Your task to perform on an android device: change notifications settings Image 0: 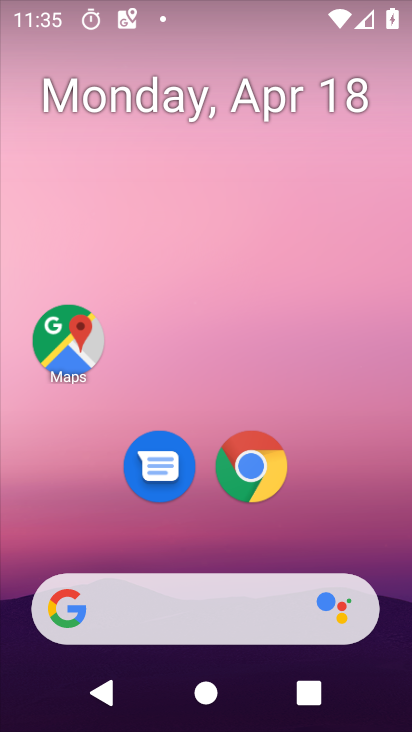
Step 0: drag from (248, 571) to (246, 132)
Your task to perform on an android device: change notifications settings Image 1: 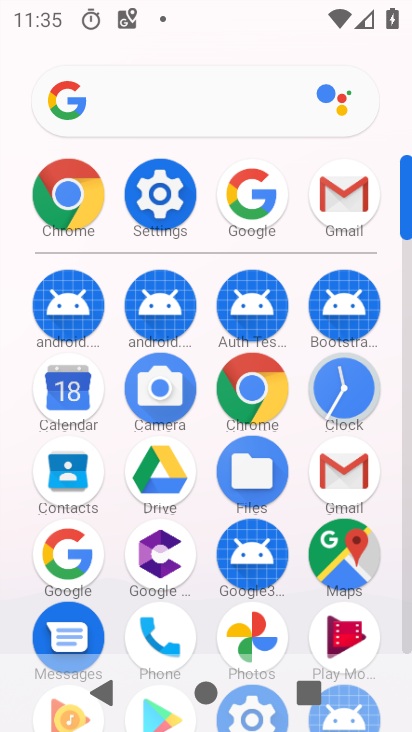
Step 1: click (153, 184)
Your task to perform on an android device: change notifications settings Image 2: 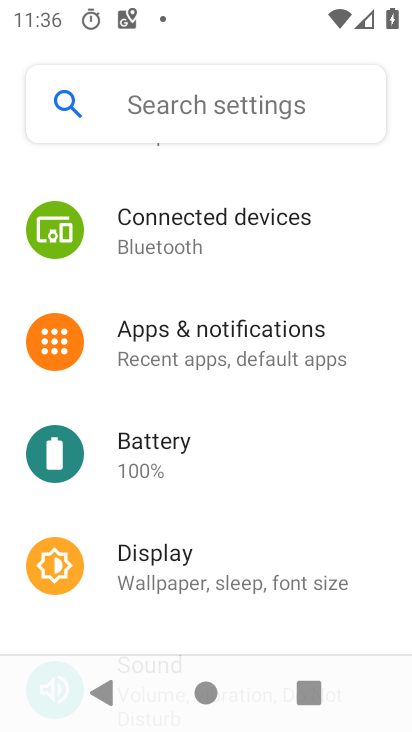
Step 2: click (269, 338)
Your task to perform on an android device: change notifications settings Image 3: 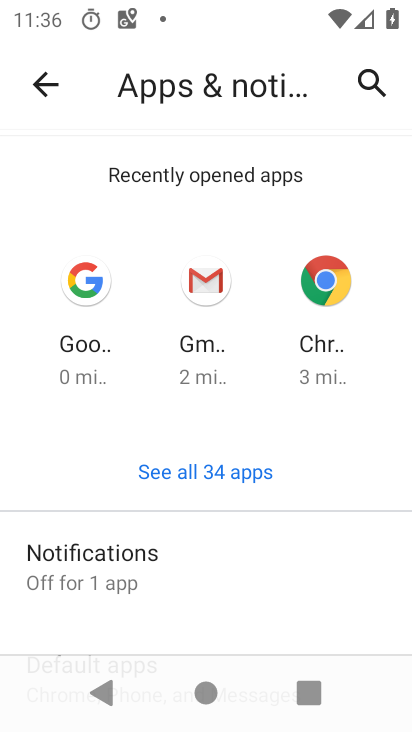
Step 3: click (214, 563)
Your task to perform on an android device: change notifications settings Image 4: 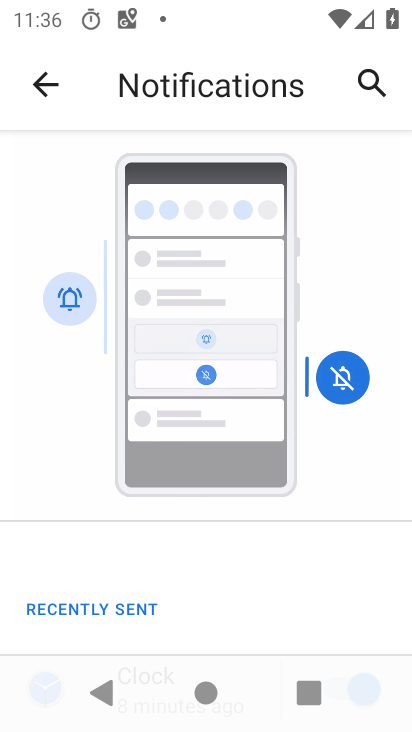
Step 4: drag from (263, 577) to (299, 288)
Your task to perform on an android device: change notifications settings Image 5: 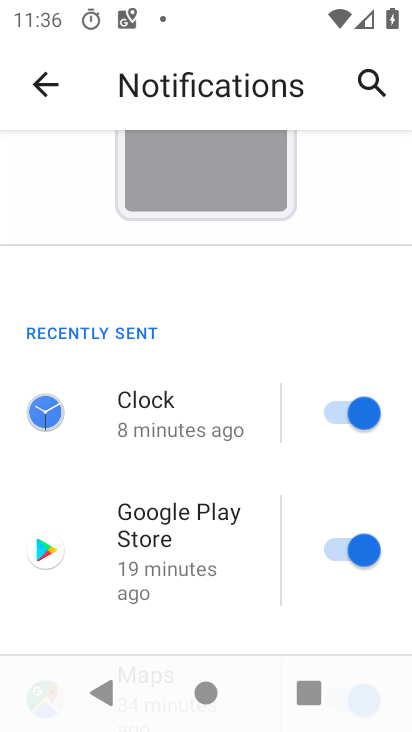
Step 5: click (327, 410)
Your task to perform on an android device: change notifications settings Image 6: 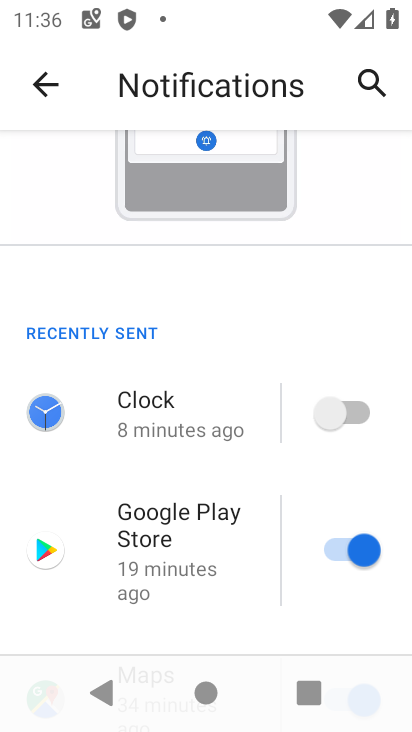
Step 6: task complete